Your task to perform on an android device: Open calendar and show me the first week of next month Image 0: 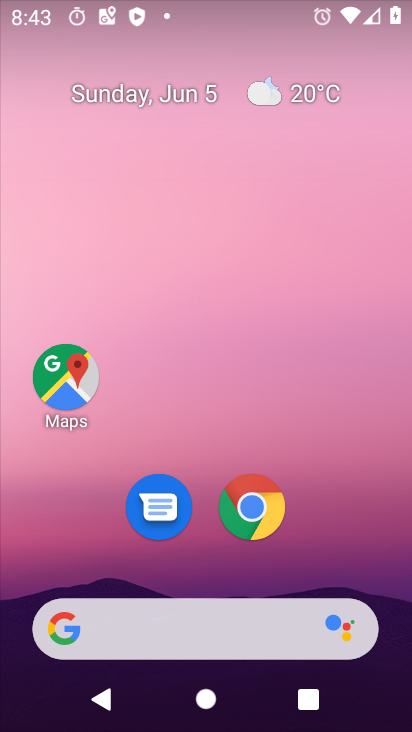
Step 0: drag from (340, 530) to (309, 26)
Your task to perform on an android device: Open calendar and show me the first week of next month Image 1: 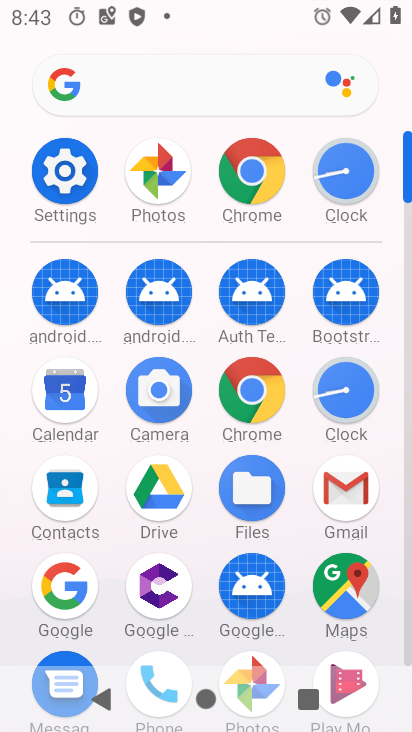
Step 1: drag from (0, 593) to (24, 337)
Your task to perform on an android device: Open calendar and show me the first week of next month Image 2: 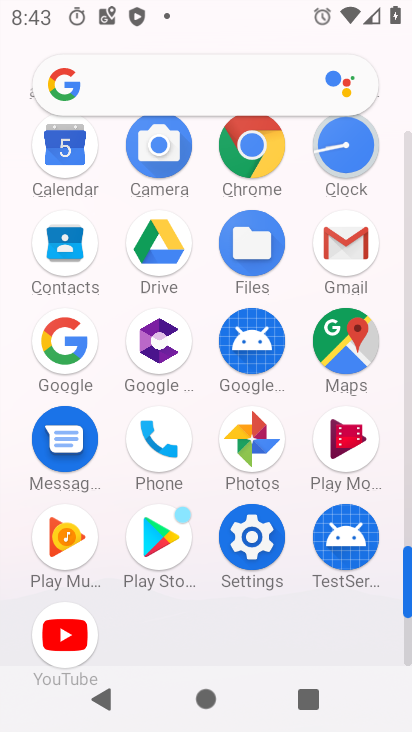
Step 2: click (65, 236)
Your task to perform on an android device: Open calendar and show me the first week of next month Image 3: 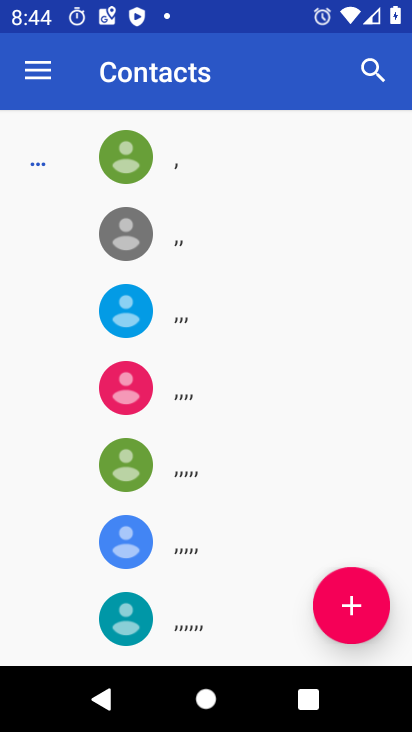
Step 3: press back button
Your task to perform on an android device: Open calendar and show me the first week of next month Image 4: 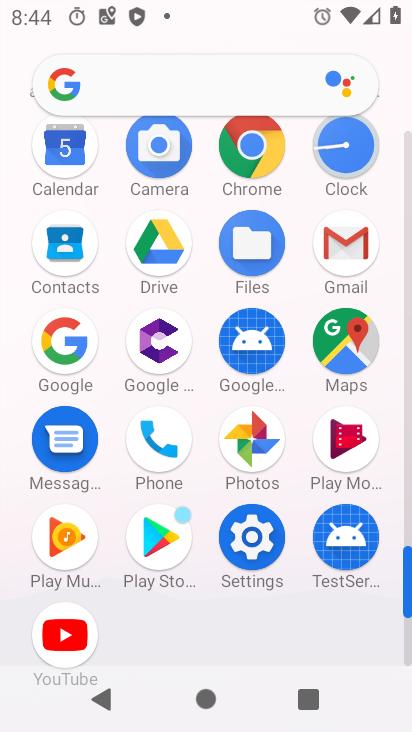
Step 4: click (61, 141)
Your task to perform on an android device: Open calendar and show me the first week of next month Image 5: 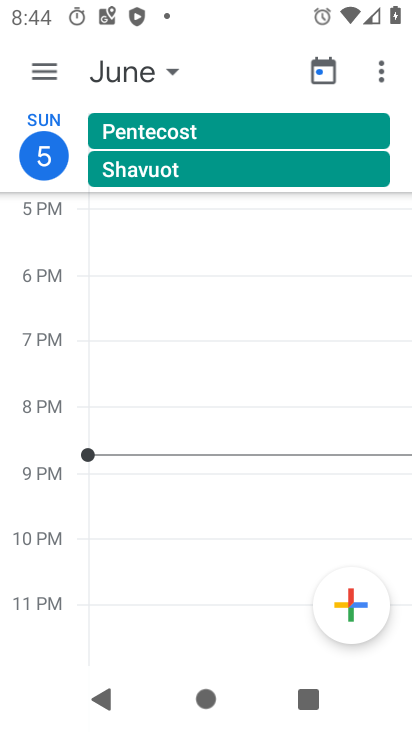
Step 5: click (103, 71)
Your task to perform on an android device: Open calendar and show me the first week of next month Image 6: 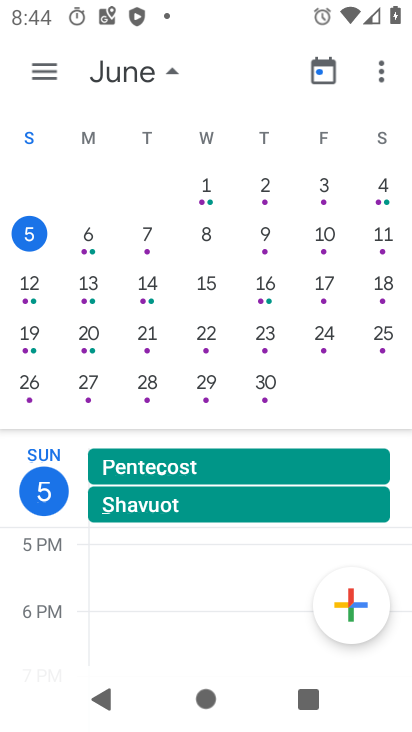
Step 6: drag from (382, 278) to (0, 252)
Your task to perform on an android device: Open calendar and show me the first week of next month Image 7: 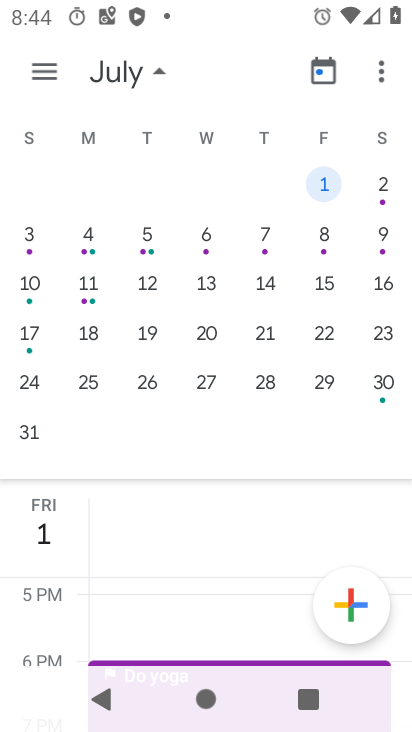
Step 7: click (31, 226)
Your task to perform on an android device: Open calendar and show me the first week of next month Image 8: 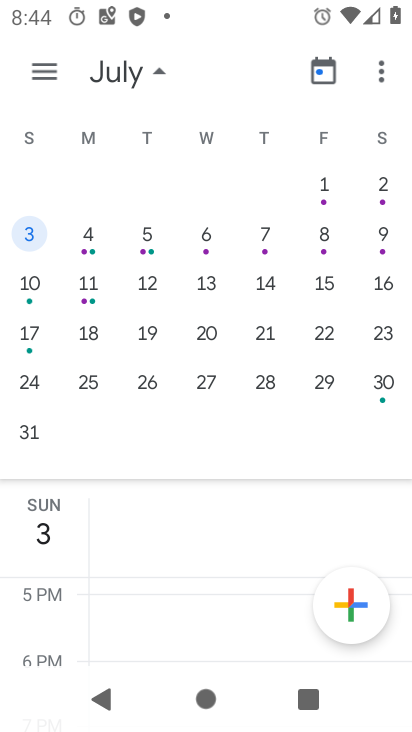
Step 8: click (29, 70)
Your task to perform on an android device: Open calendar and show me the first week of next month Image 9: 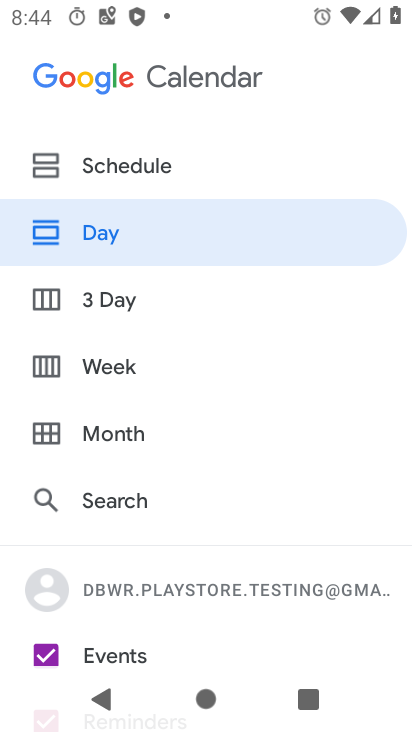
Step 9: click (140, 374)
Your task to perform on an android device: Open calendar and show me the first week of next month Image 10: 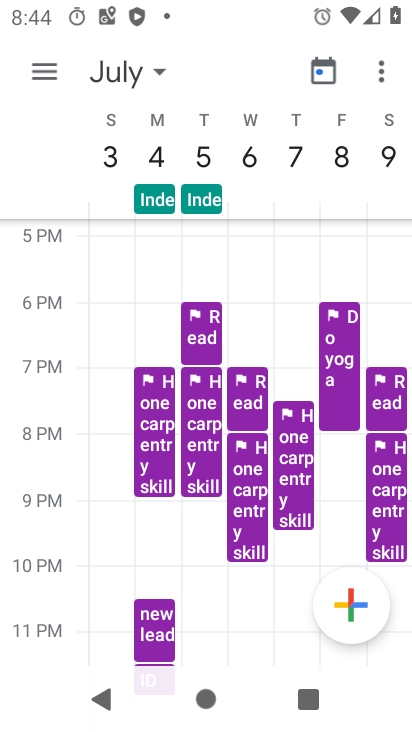
Step 10: task complete